Your task to perform on an android device: Open ESPN.com Image 0: 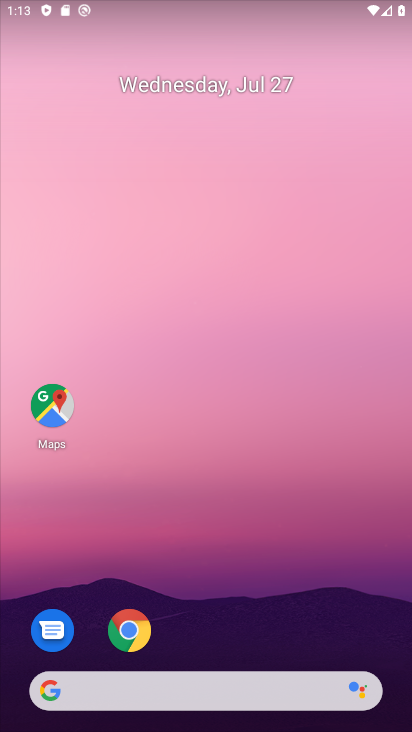
Step 0: click (137, 637)
Your task to perform on an android device: Open ESPN.com Image 1: 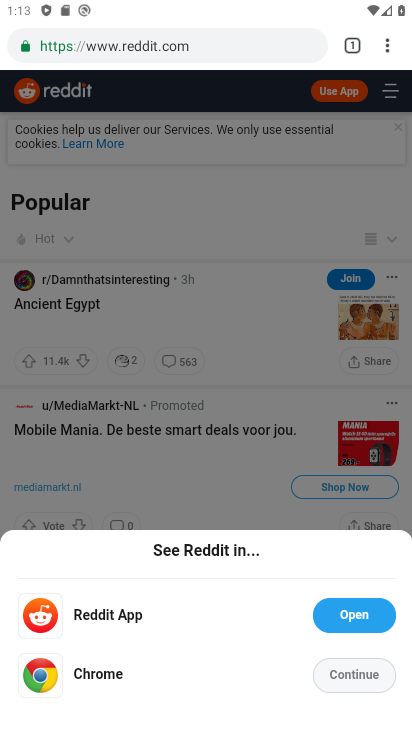
Step 1: click (163, 53)
Your task to perform on an android device: Open ESPN.com Image 2: 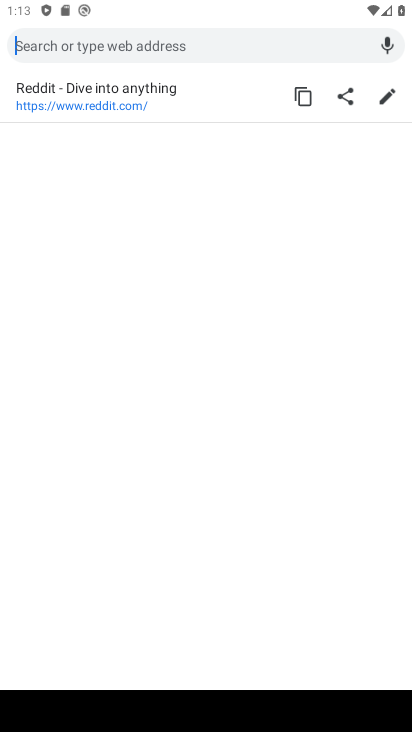
Step 2: type "espn.com"
Your task to perform on an android device: Open ESPN.com Image 3: 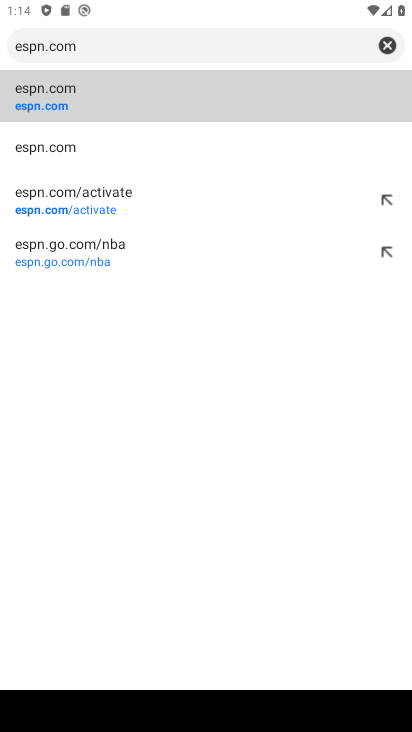
Step 3: click (68, 94)
Your task to perform on an android device: Open ESPN.com Image 4: 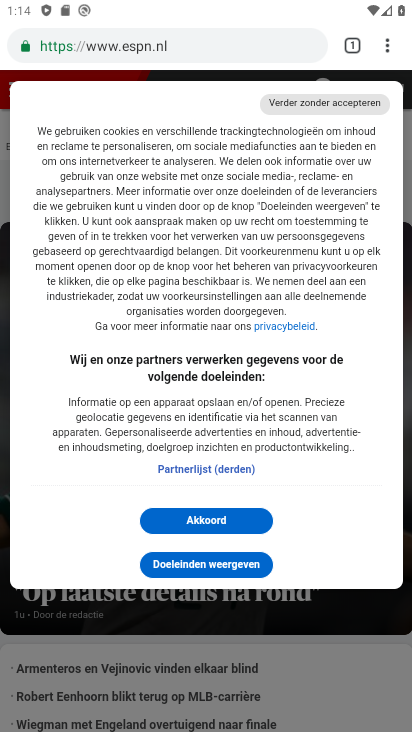
Step 4: task complete